Your task to perform on an android device: turn on data saver in the chrome app Image 0: 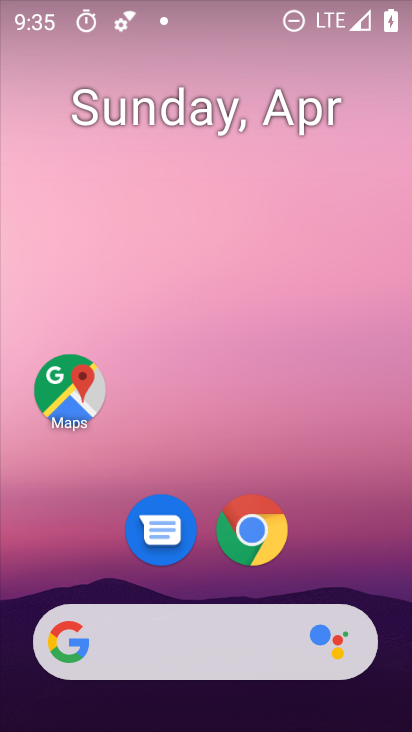
Step 0: click (260, 533)
Your task to perform on an android device: turn on data saver in the chrome app Image 1: 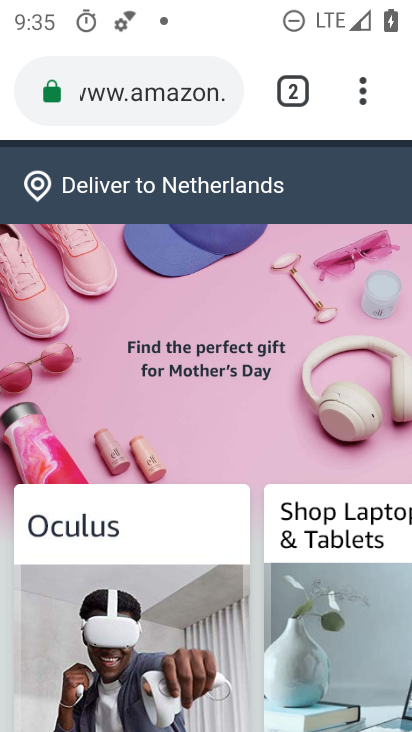
Step 1: click (360, 89)
Your task to perform on an android device: turn on data saver in the chrome app Image 2: 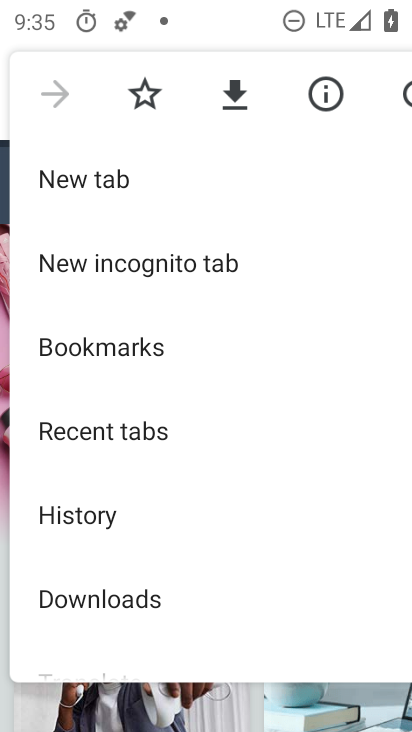
Step 2: drag from (125, 471) to (134, 171)
Your task to perform on an android device: turn on data saver in the chrome app Image 3: 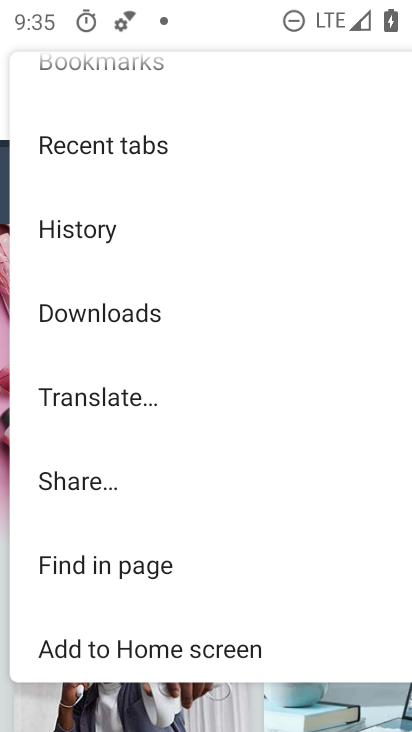
Step 3: drag from (138, 517) to (148, 177)
Your task to perform on an android device: turn on data saver in the chrome app Image 4: 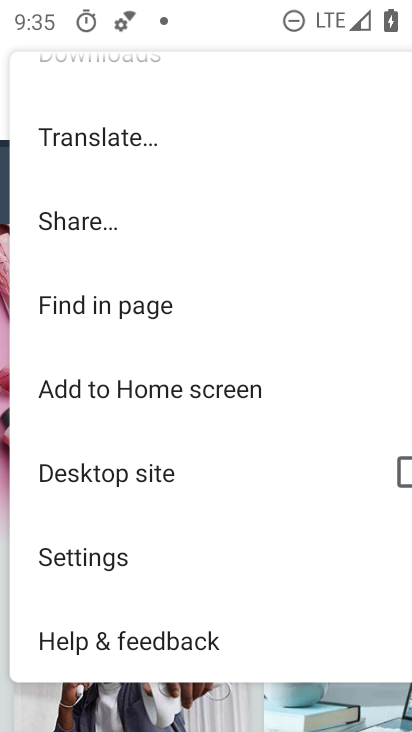
Step 4: click (83, 554)
Your task to perform on an android device: turn on data saver in the chrome app Image 5: 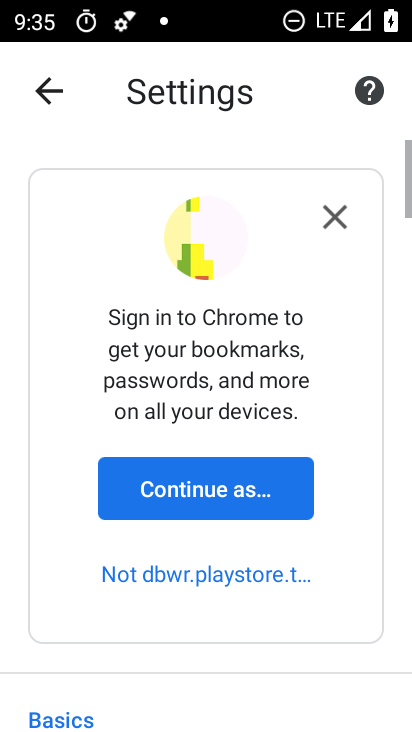
Step 5: drag from (219, 635) to (192, 187)
Your task to perform on an android device: turn on data saver in the chrome app Image 6: 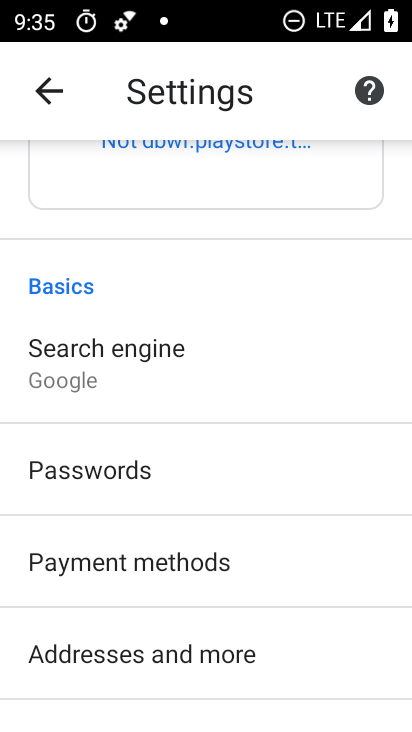
Step 6: drag from (155, 559) to (155, 213)
Your task to perform on an android device: turn on data saver in the chrome app Image 7: 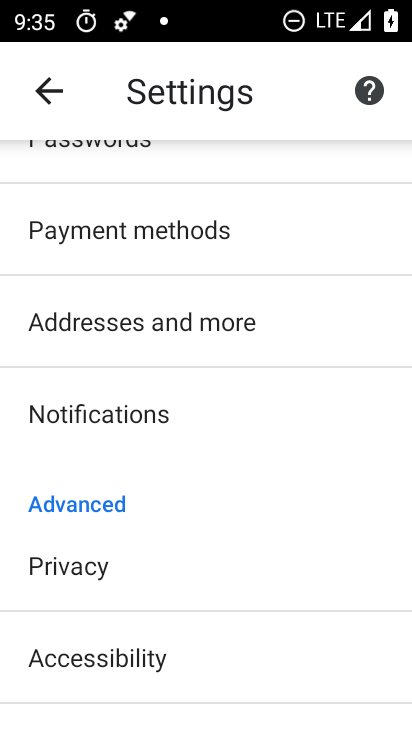
Step 7: drag from (218, 555) to (213, 220)
Your task to perform on an android device: turn on data saver in the chrome app Image 8: 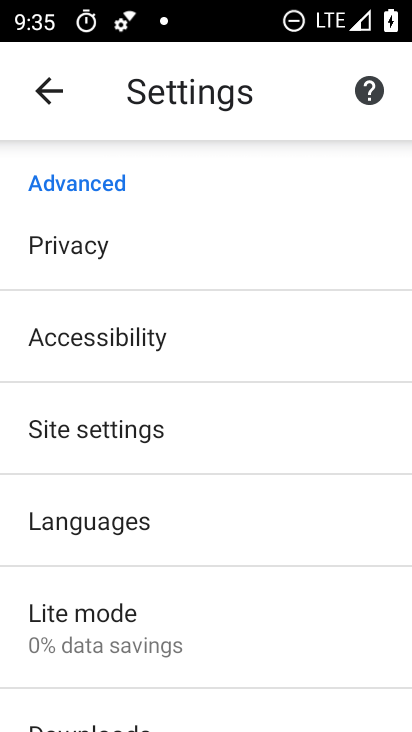
Step 8: click (79, 627)
Your task to perform on an android device: turn on data saver in the chrome app Image 9: 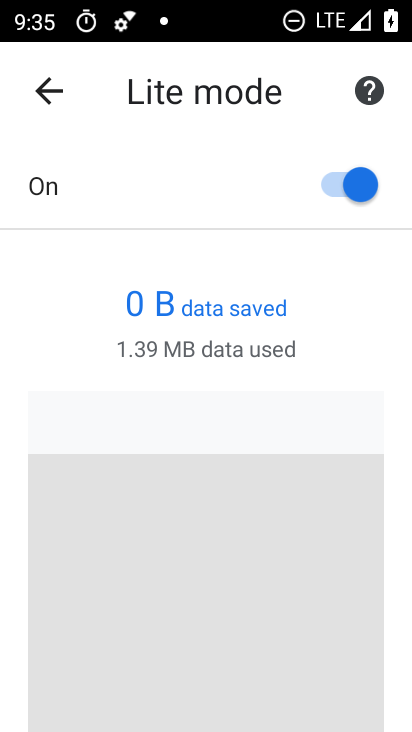
Step 9: task complete